Your task to perform on an android device: Open Reddit.com Image 0: 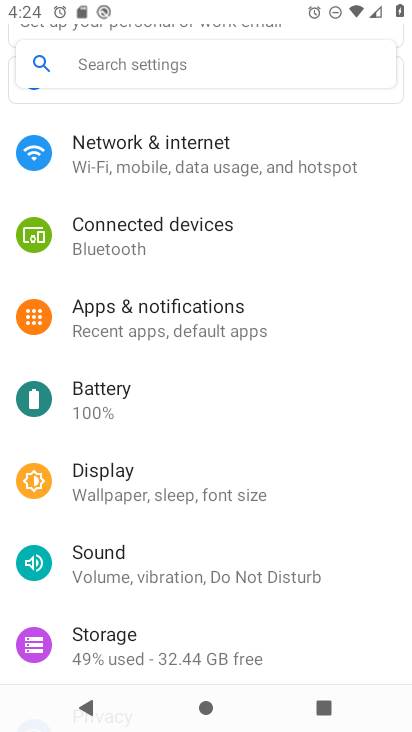
Step 0: press home button
Your task to perform on an android device: Open Reddit.com Image 1: 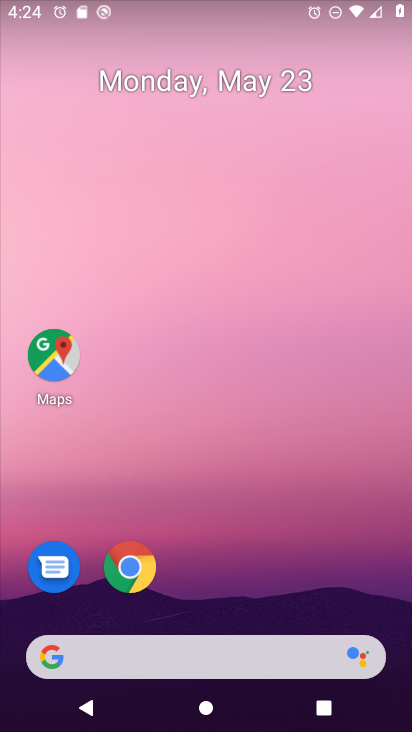
Step 1: click (124, 565)
Your task to perform on an android device: Open Reddit.com Image 2: 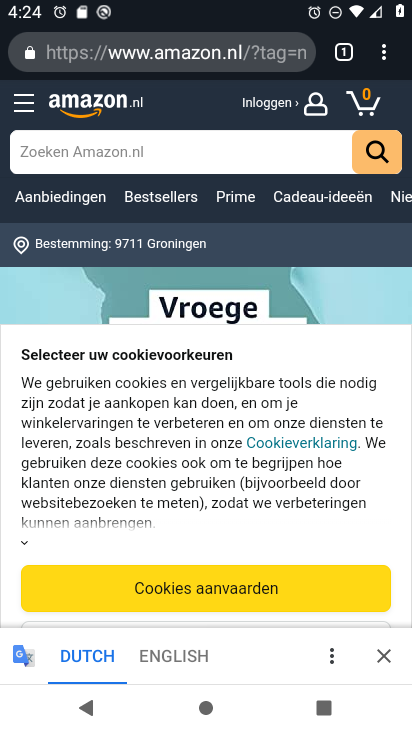
Step 2: click (154, 61)
Your task to perform on an android device: Open Reddit.com Image 3: 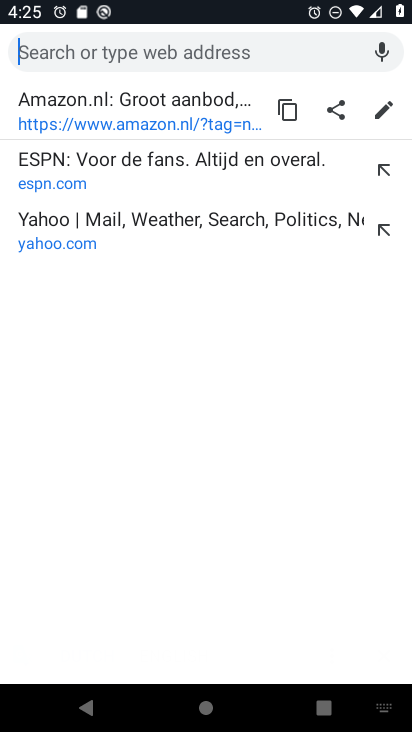
Step 3: type "reddit.com"
Your task to perform on an android device: Open Reddit.com Image 4: 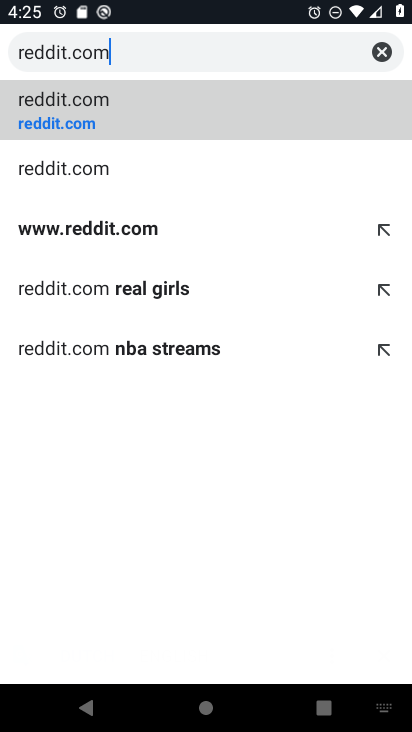
Step 4: click (106, 107)
Your task to perform on an android device: Open Reddit.com Image 5: 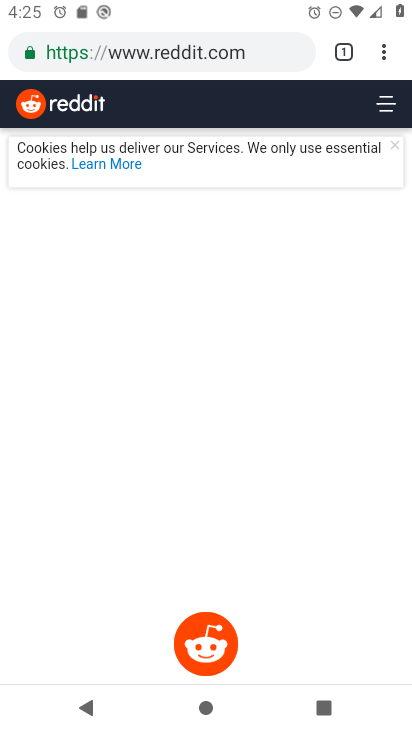
Step 5: task complete